Your task to perform on an android device: Open the stopwatch Image 0: 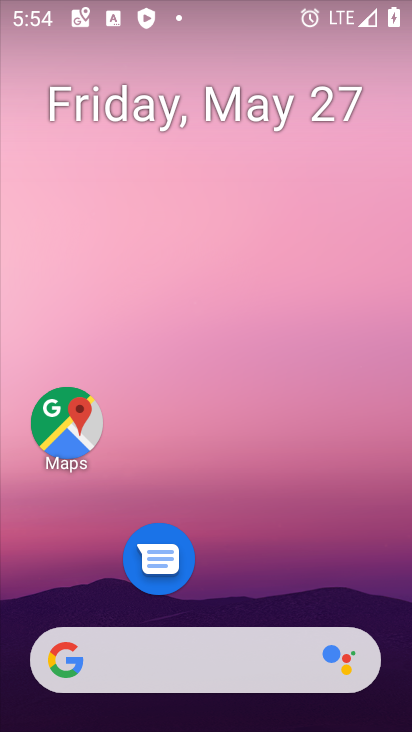
Step 0: drag from (261, 645) to (367, 9)
Your task to perform on an android device: Open the stopwatch Image 1: 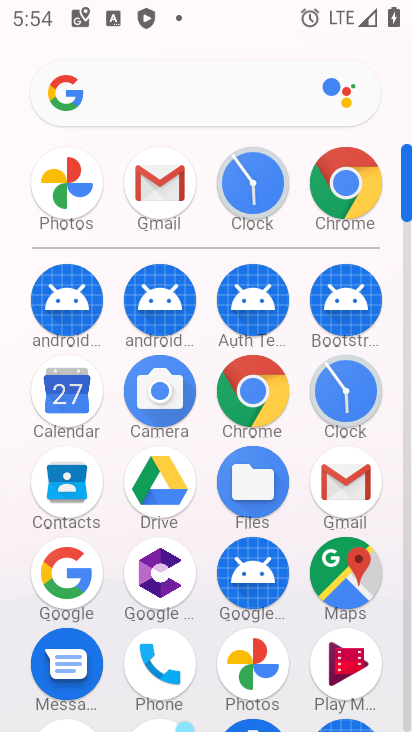
Step 1: click (344, 401)
Your task to perform on an android device: Open the stopwatch Image 2: 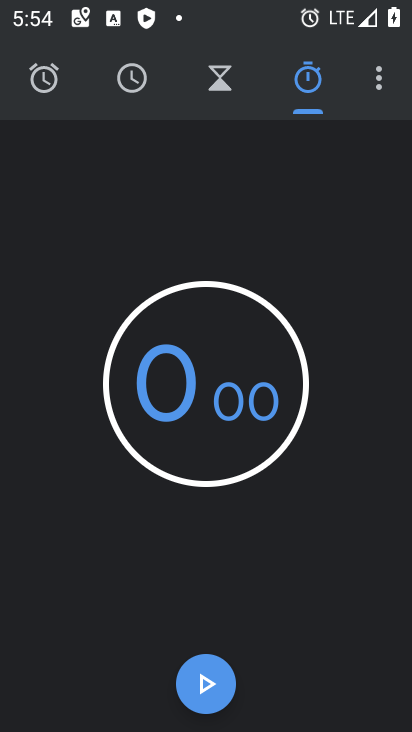
Step 2: task complete